Your task to perform on an android device: turn off javascript in the chrome app Image 0: 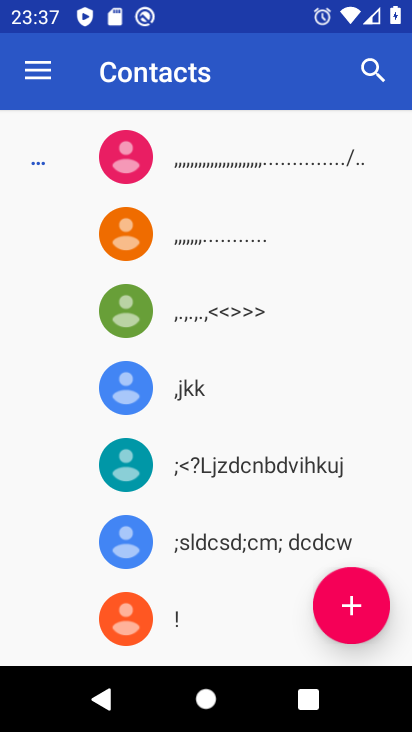
Step 0: press home button
Your task to perform on an android device: turn off javascript in the chrome app Image 1: 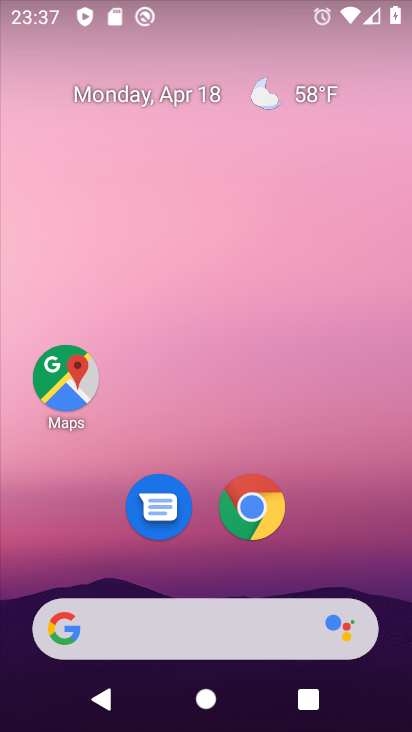
Step 1: click (248, 509)
Your task to perform on an android device: turn off javascript in the chrome app Image 2: 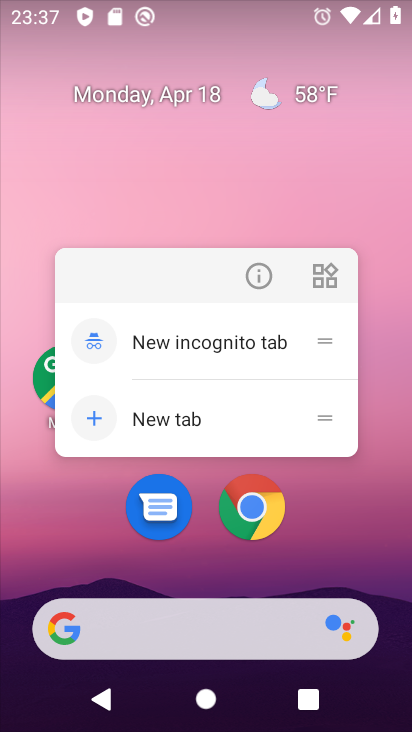
Step 2: click (189, 423)
Your task to perform on an android device: turn off javascript in the chrome app Image 3: 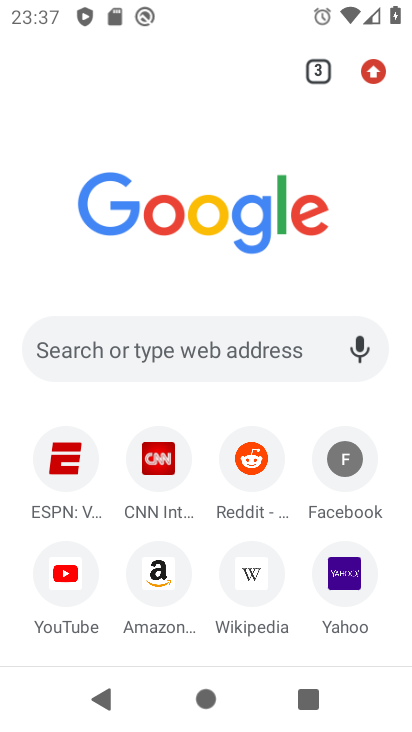
Step 3: click (380, 67)
Your task to perform on an android device: turn off javascript in the chrome app Image 4: 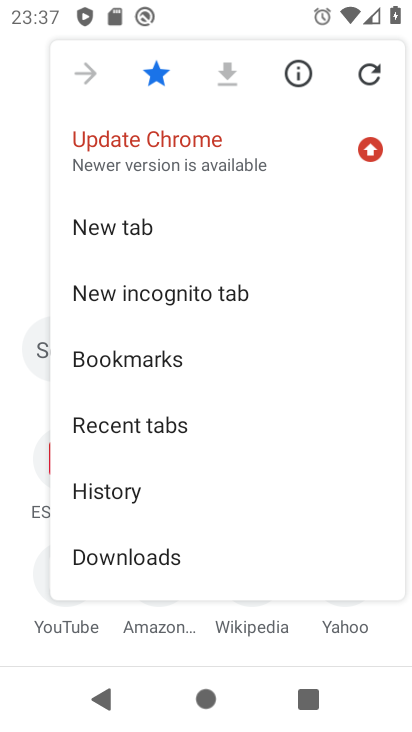
Step 4: drag from (147, 533) to (157, 119)
Your task to perform on an android device: turn off javascript in the chrome app Image 5: 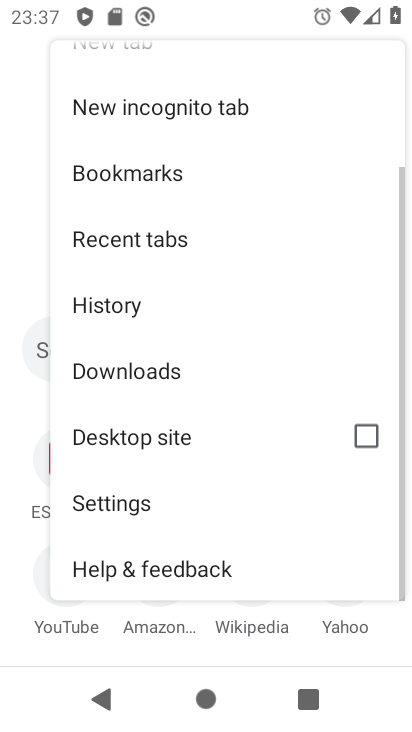
Step 5: click (104, 514)
Your task to perform on an android device: turn off javascript in the chrome app Image 6: 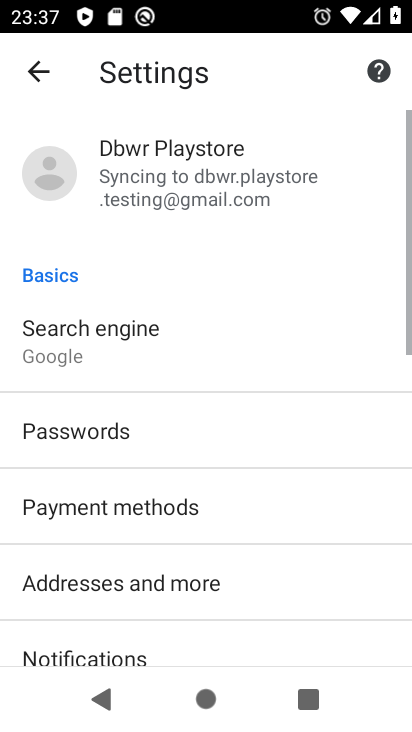
Step 6: drag from (104, 514) to (128, 37)
Your task to perform on an android device: turn off javascript in the chrome app Image 7: 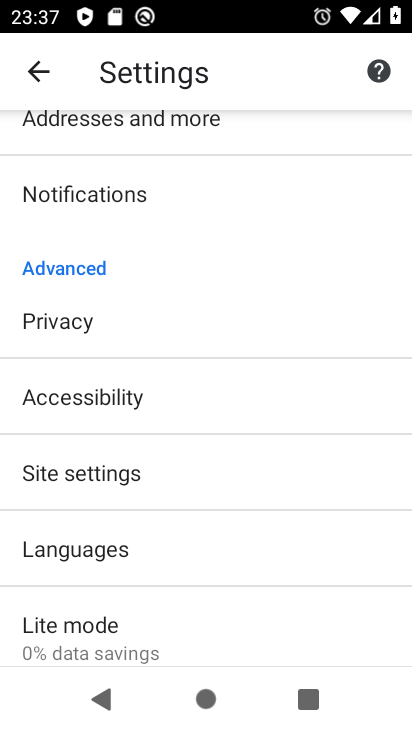
Step 7: click (128, 487)
Your task to perform on an android device: turn off javascript in the chrome app Image 8: 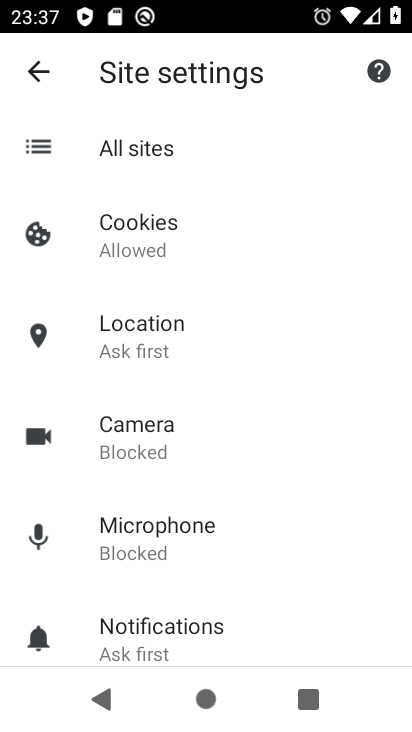
Step 8: drag from (48, 584) to (87, 95)
Your task to perform on an android device: turn off javascript in the chrome app Image 9: 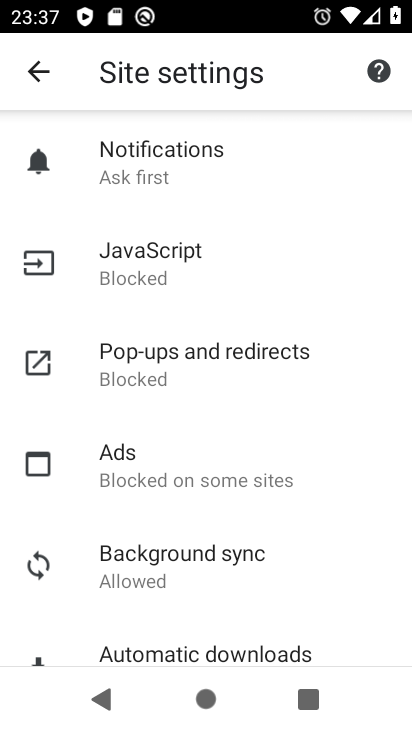
Step 9: drag from (119, 570) to (217, 150)
Your task to perform on an android device: turn off javascript in the chrome app Image 10: 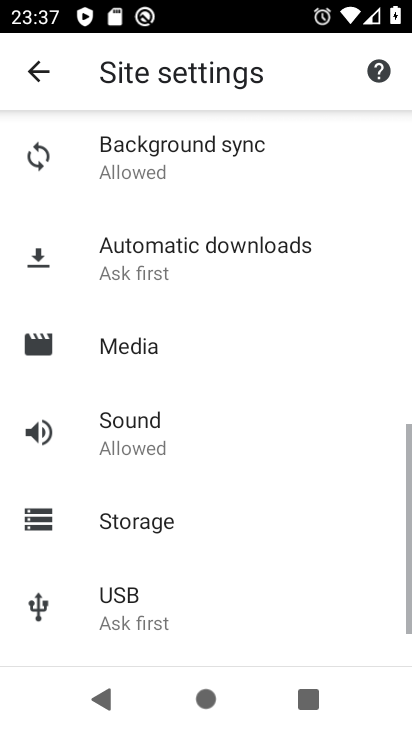
Step 10: drag from (144, 169) to (103, 562)
Your task to perform on an android device: turn off javascript in the chrome app Image 11: 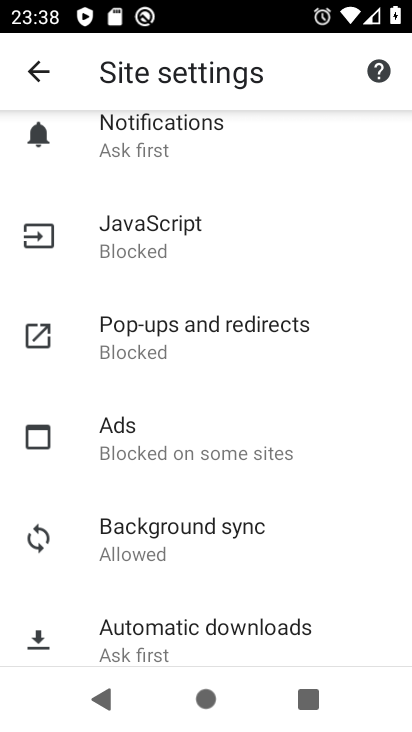
Step 11: click (138, 269)
Your task to perform on an android device: turn off javascript in the chrome app Image 12: 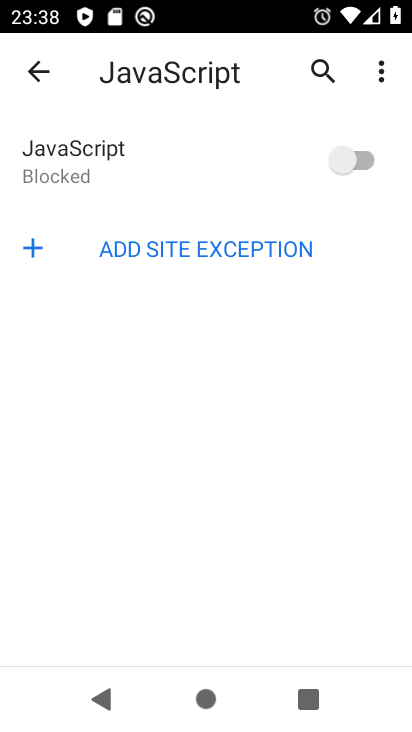
Step 12: task complete